Your task to perform on an android device: turn off data saver in the chrome app Image 0: 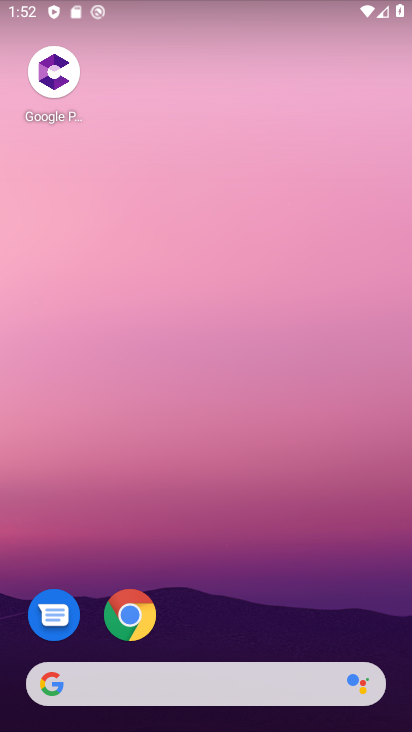
Step 0: drag from (213, 657) to (315, 145)
Your task to perform on an android device: turn off data saver in the chrome app Image 1: 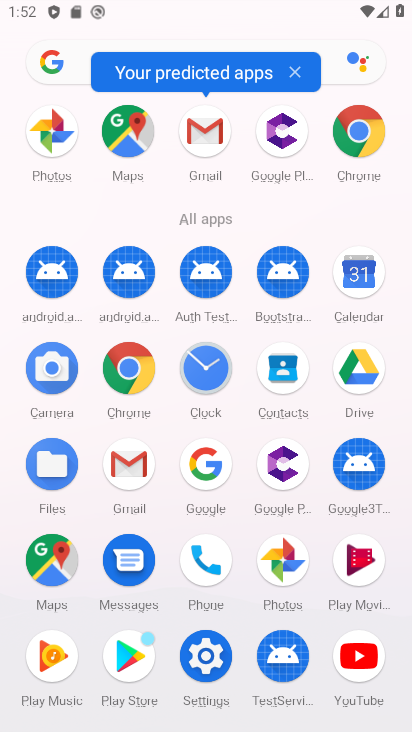
Step 1: click (118, 362)
Your task to perform on an android device: turn off data saver in the chrome app Image 2: 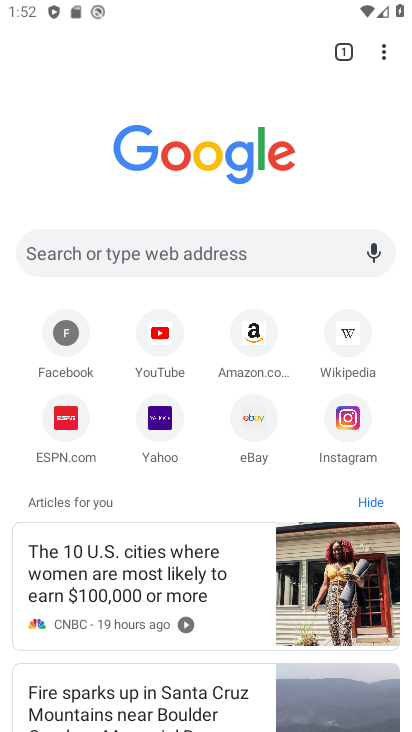
Step 2: task complete